Your task to perform on an android device: Open display settings Image 0: 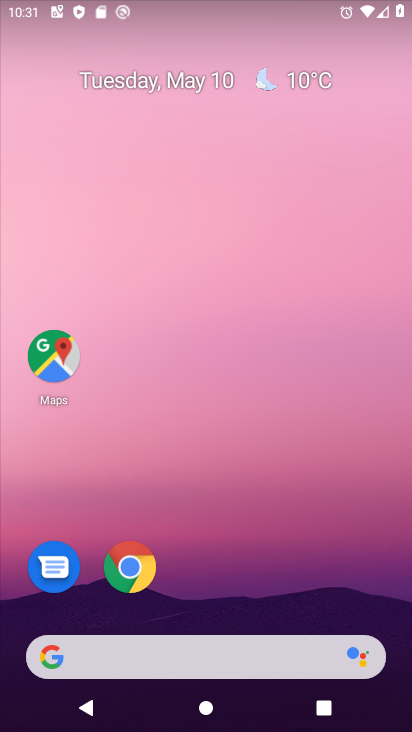
Step 0: drag from (295, 603) to (312, 6)
Your task to perform on an android device: Open display settings Image 1: 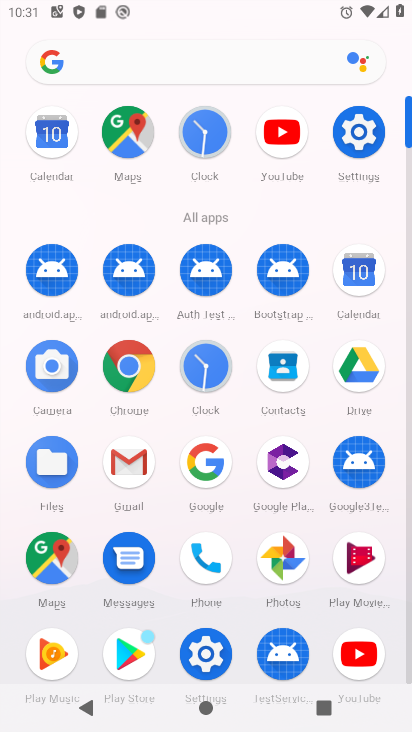
Step 1: click (352, 135)
Your task to perform on an android device: Open display settings Image 2: 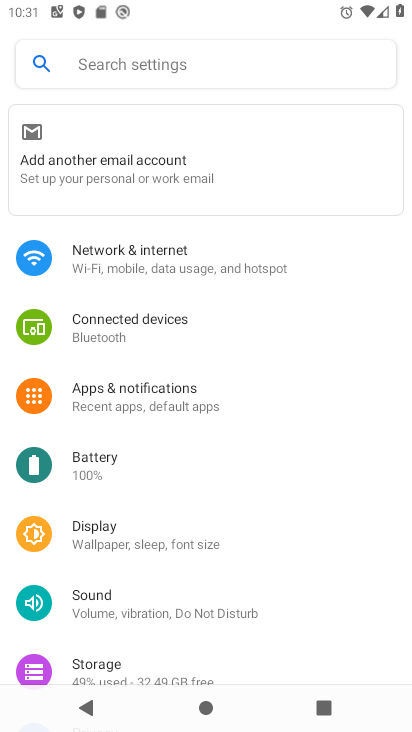
Step 2: click (113, 546)
Your task to perform on an android device: Open display settings Image 3: 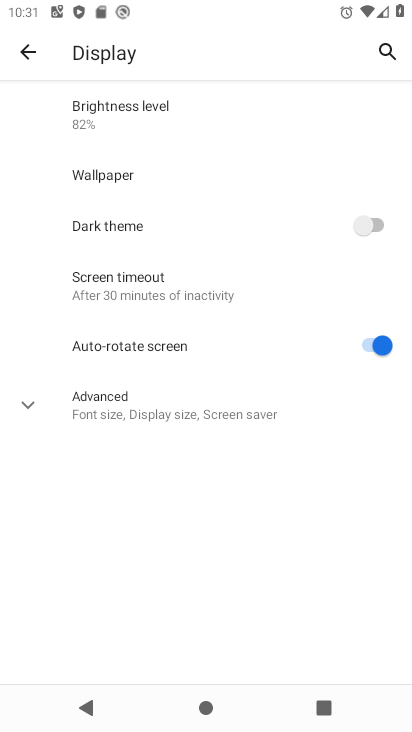
Step 3: task complete